Your task to perform on an android device: What's on my calendar tomorrow? Image 0: 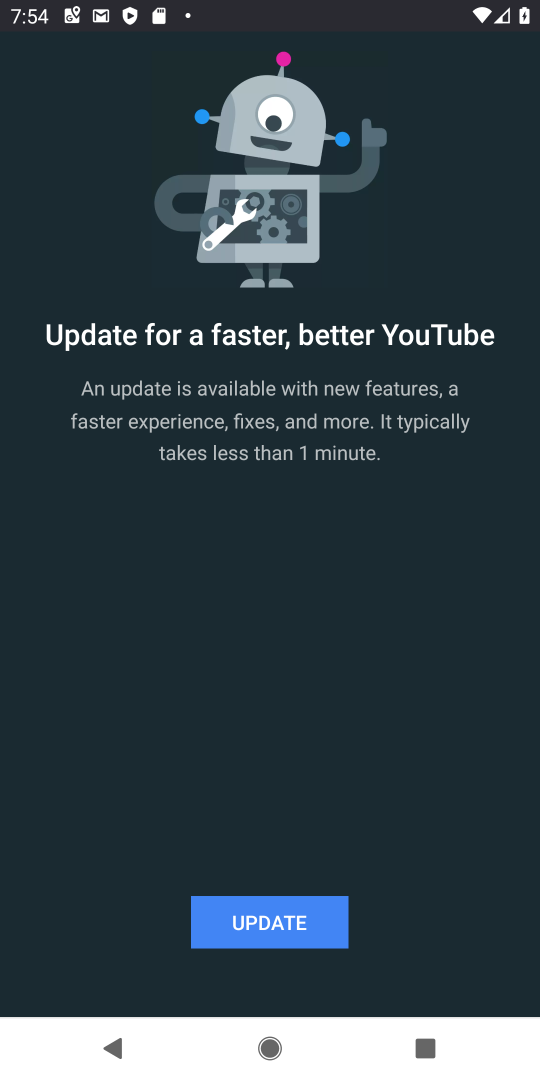
Step 0: press home button
Your task to perform on an android device: What's on my calendar tomorrow? Image 1: 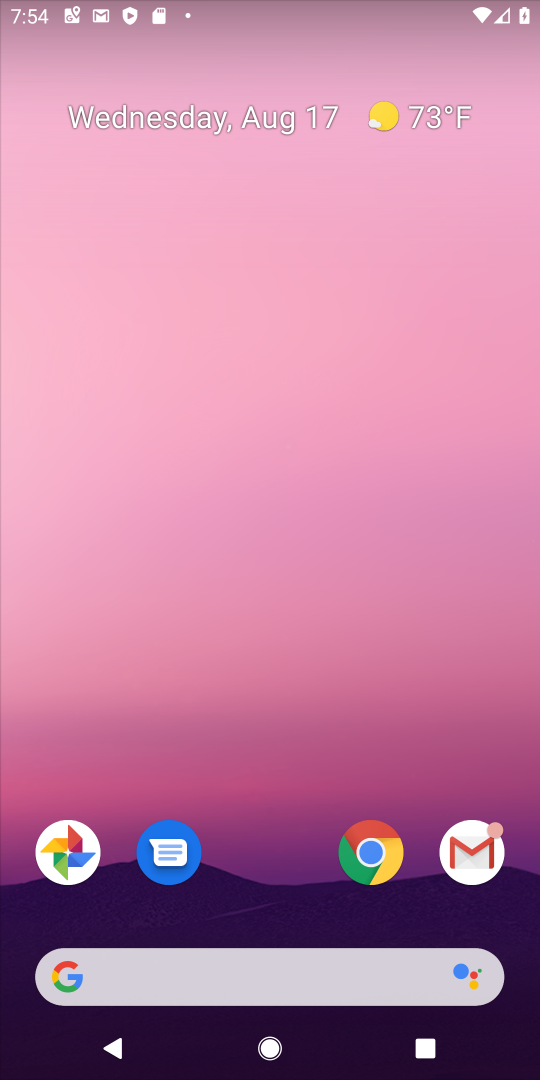
Step 1: drag from (287, 881) to (260, 194)
Your task to perform on an android device: What's on my calendar tomorrow? Image 2: 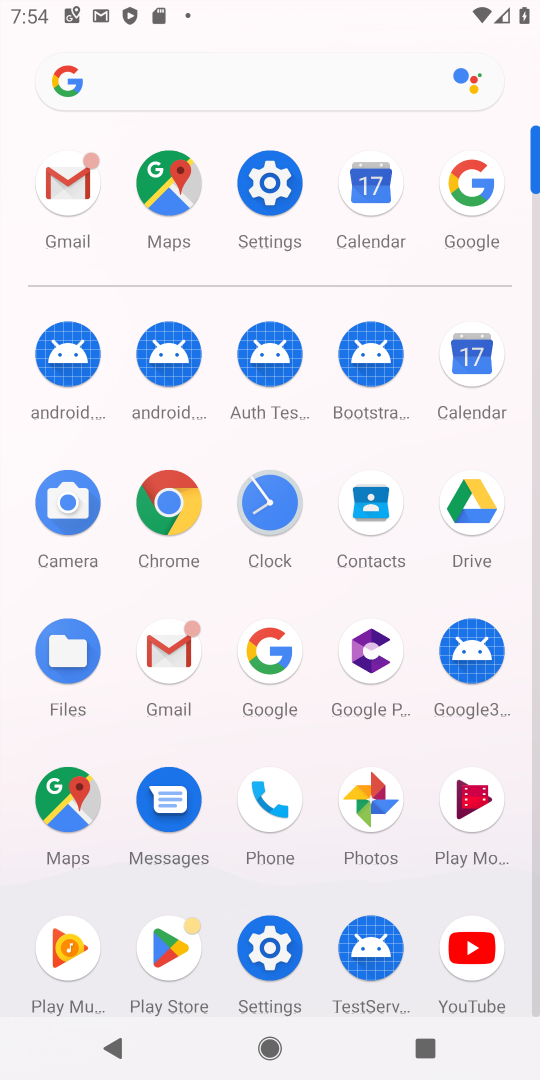
Step 2: click (464, 359)
Your task to perform on an android device: What's on my calendar tomorrow? Image 3: 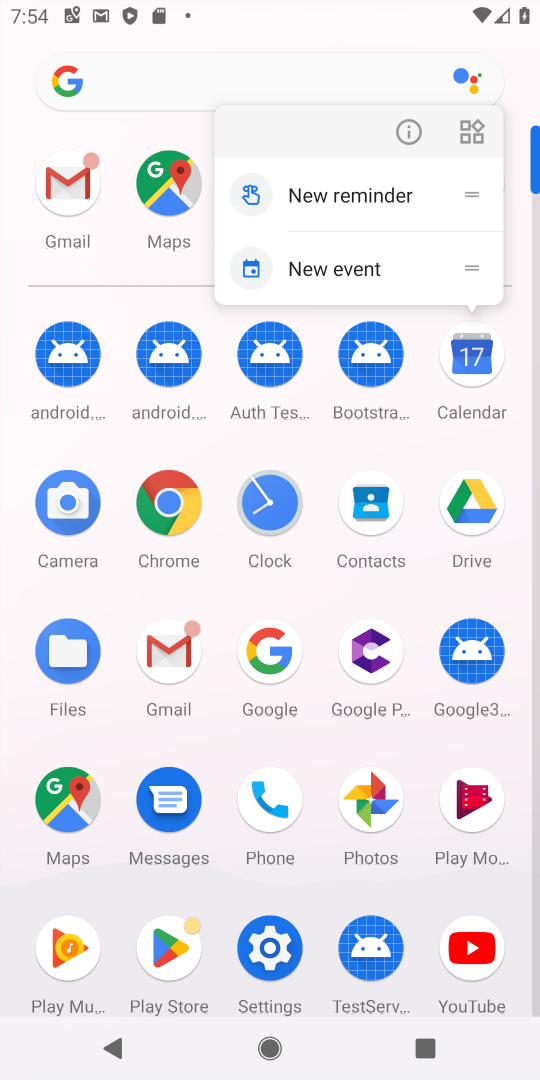
Step 3: click (469, 373)
Your task to perform on an android device: What's on my calendar tomorrow? Image 4: 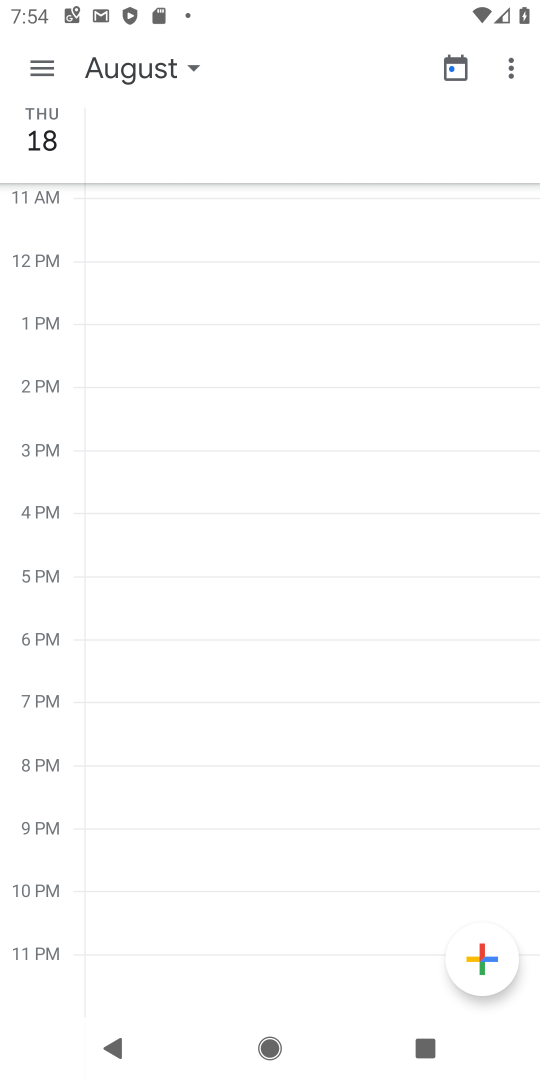
Step 4: task complete